Your task to perform on an android device: turn off location history Image 0: 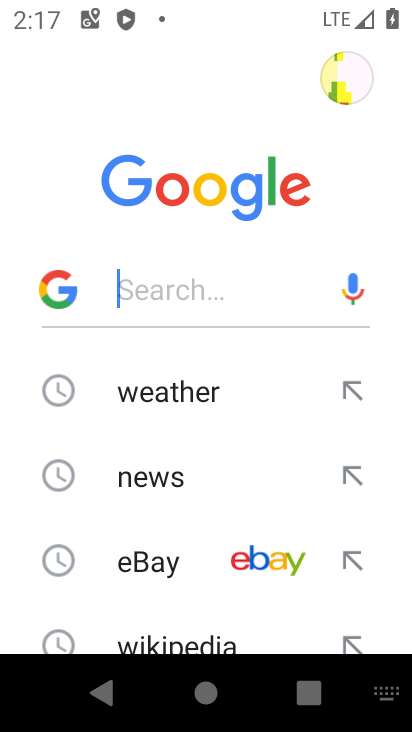
Step 0: press home button
Your task to perform on an android device: turn off location history Image 1: 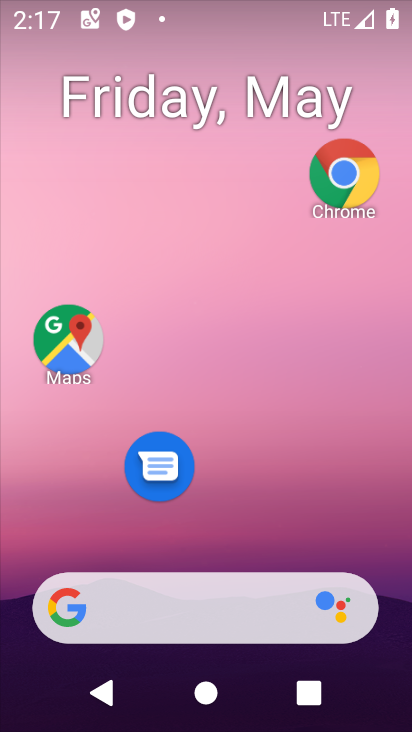
Step 1: click (331, 163)
Your task to perform on an android device: turn off location history Image 2: 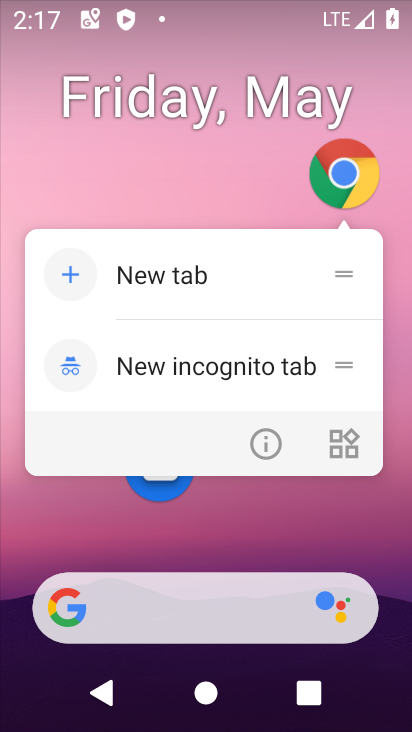
Step 2: click (199, 198)
Your task to perform on an android device: turn off location history Image 3: 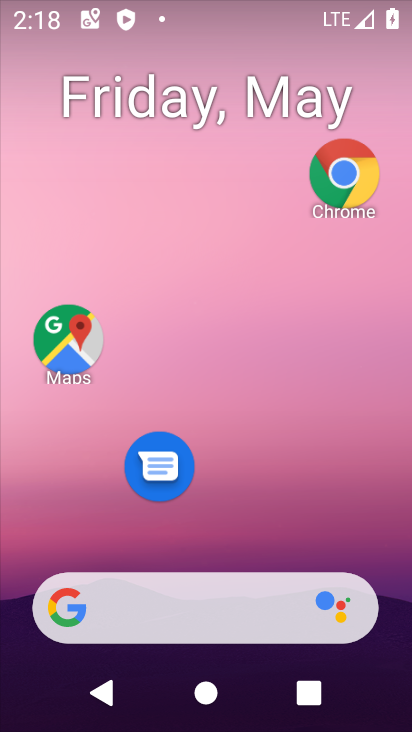
Step 3: drag from (262, 478) to (243, 355)
Your task to perform on an android device: turn off location history Image 4: 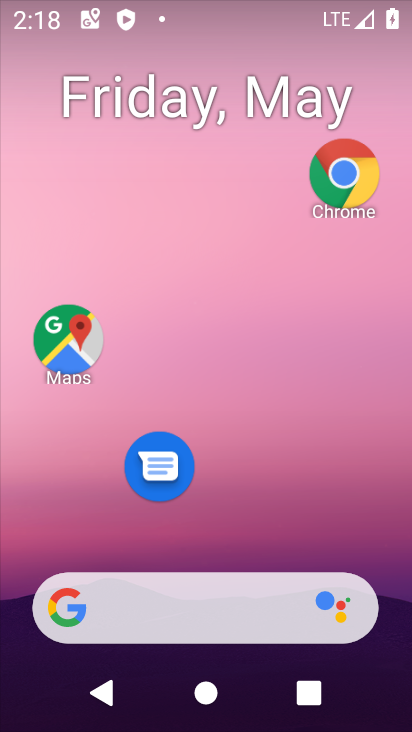
Step 4: drag from (274, 492) to (258, 326)
Your task to perform on an android device: turn off location history Image 5: 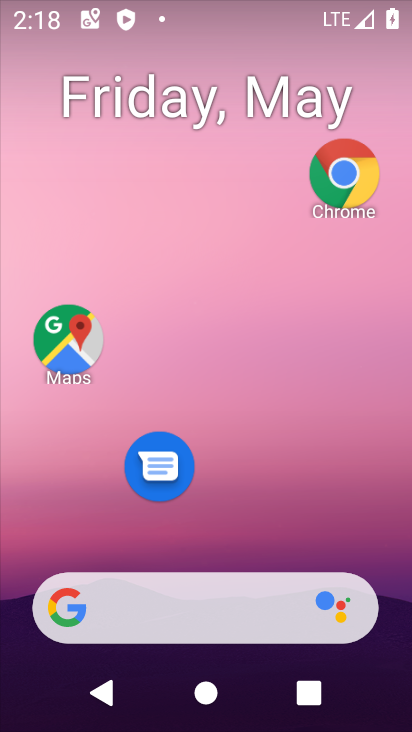
Step 5: drag from (325, 544) to (284, 110)
Your task to perform on an android device: turn off location history Image 6: 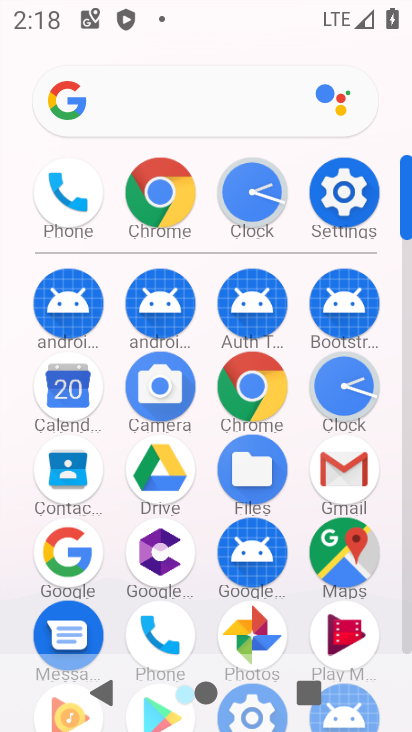
Step 6: click (349, 555)
Your task to perform on an android device: turn off location history Image 7: 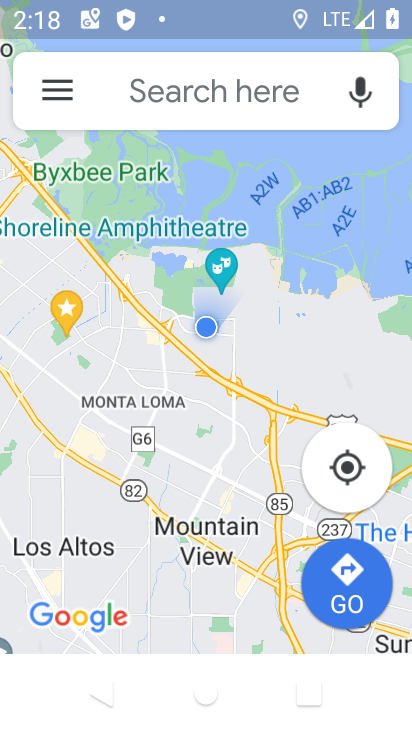
Step 7: click (60, 78)
Your task to perform on an android device: turn off location history Image 8: 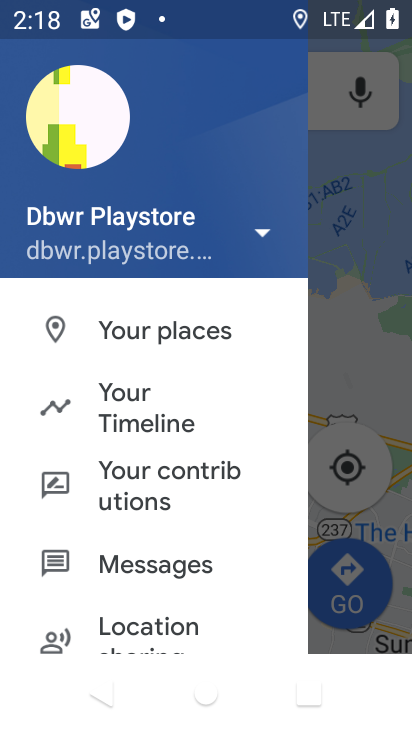
Step 8: click (120, 400)
Your task to perform on an android device: turn off location history Image 9: 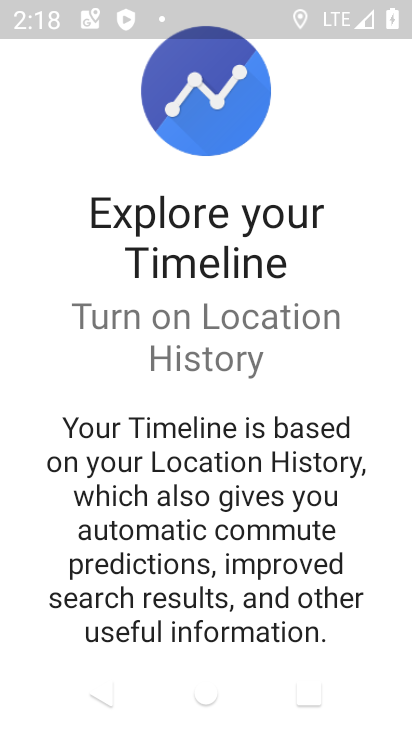
Step 9: drag from (202, 540) to (217, 172)
Your task to perform on an android device: turn off location history Image 10: 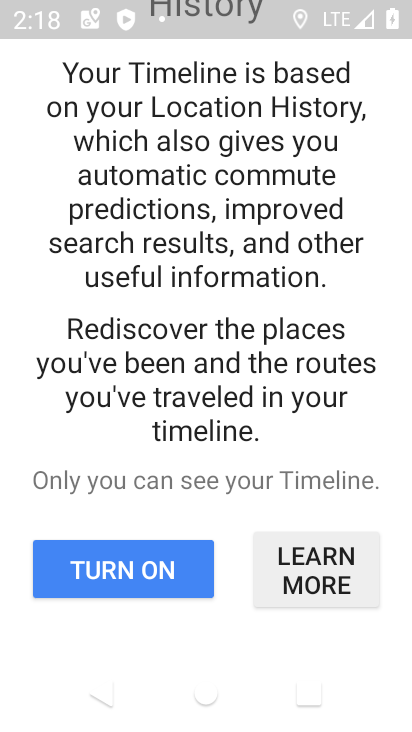
Step 10: drag from (181, 601) to (198, 264)
Your task to perform on an android device: turn off location history Image 11: 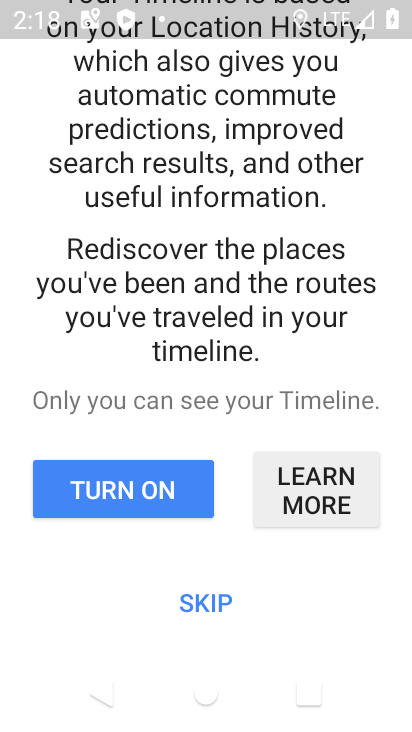
Step 11: click (99, 505)
Your task to perform on an android device: turn off location history Image 12: 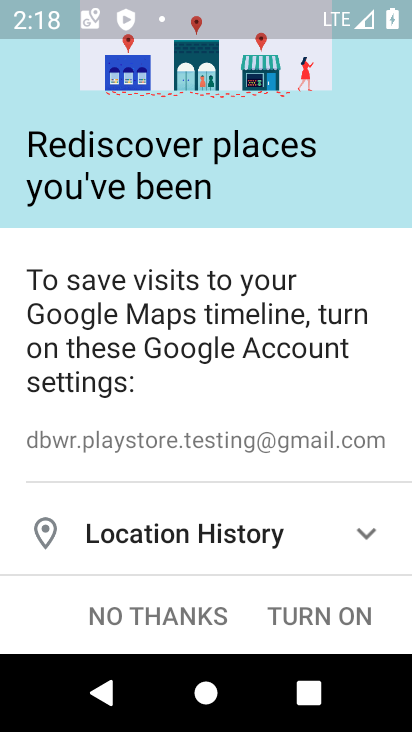
Step 12: click (219, 539)
Your task to perform on an android device: turn off location history Image 13: 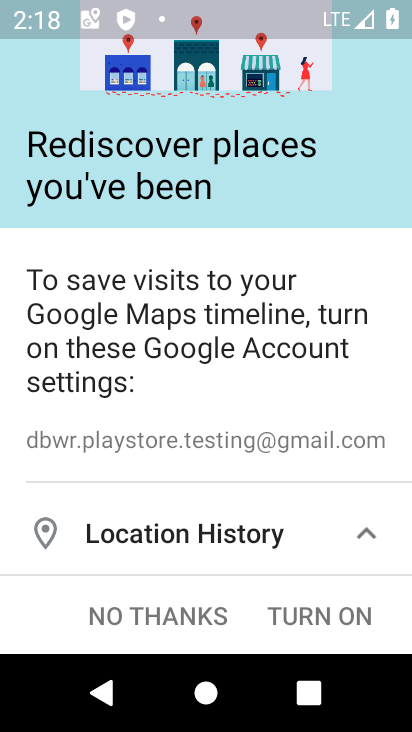
Step 13: click (367, 528)
Your task to perform on an android device: turn off location history Image 14: 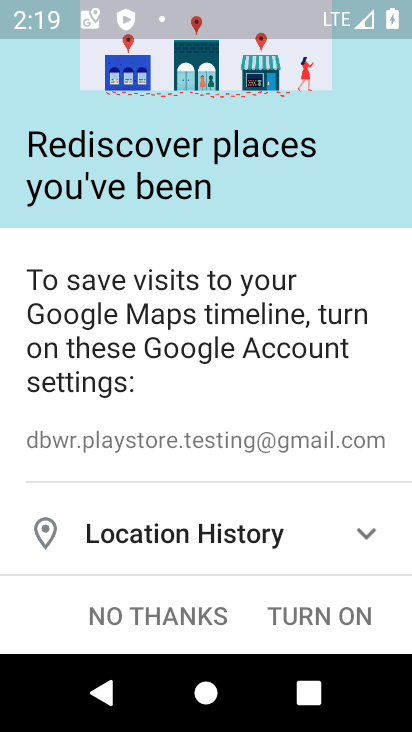
Step 14: click (322, 602)
Your task to perform on an android device: turn off location history Image 15: 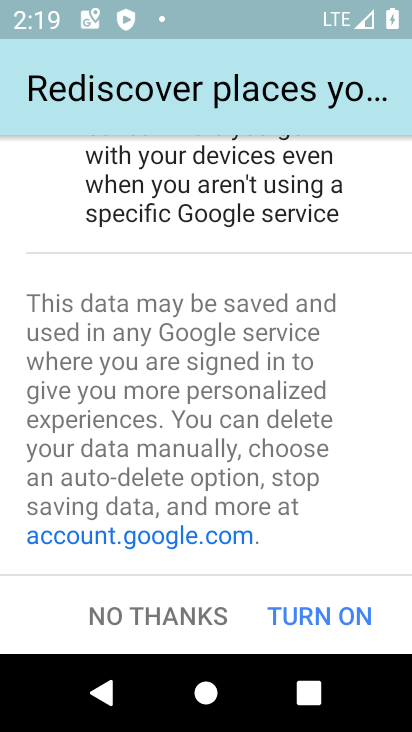
Step 15: drag from (218, 315) to (220, 255)
Your task to perform on an android device: turn off location history Image 16: 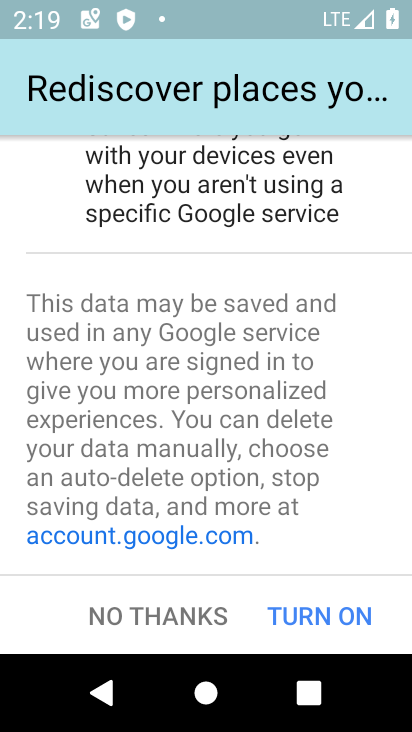
Step 16: click (165, 600)
Your task to perform on an android device: turn off location history Image 17: 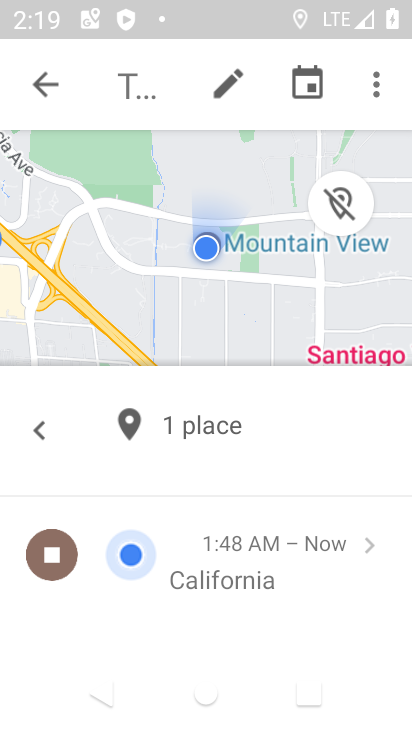
Step 17: task complete